Your task to perform on an android device: Open Android settings Image 0: 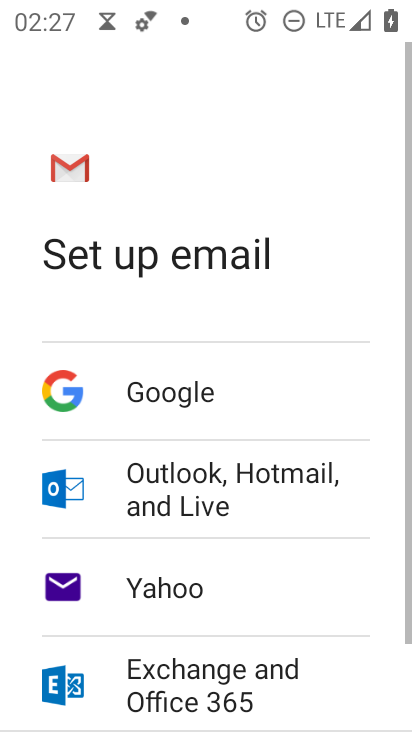
Step 0: task complete